Your task to perform on an android device: turn on the 24-hour format for clock Image 0: 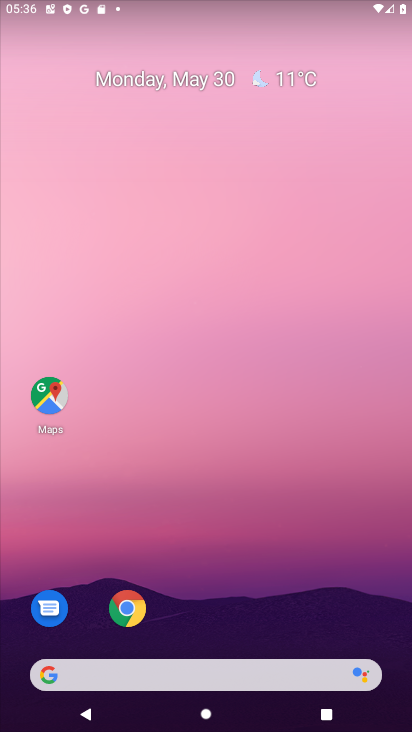
Step 0: drag from (206, 651) to (239, 219)
Your task to perform on an android device: turn on the 24-hour format for clock Image 1: 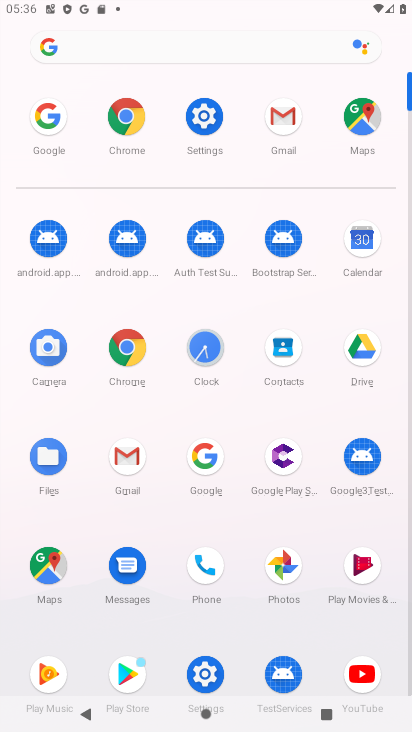
Step 1: click (197, 113)
Your task to perform on an android device: turn on the 24-hour format for clock Image 2: 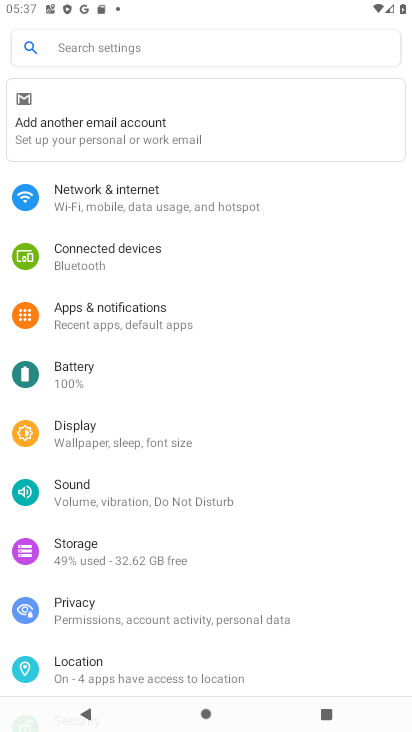
Step 2: press home button
Your task to perform on an android device: turn on the 24-hour format for clock Image 3: 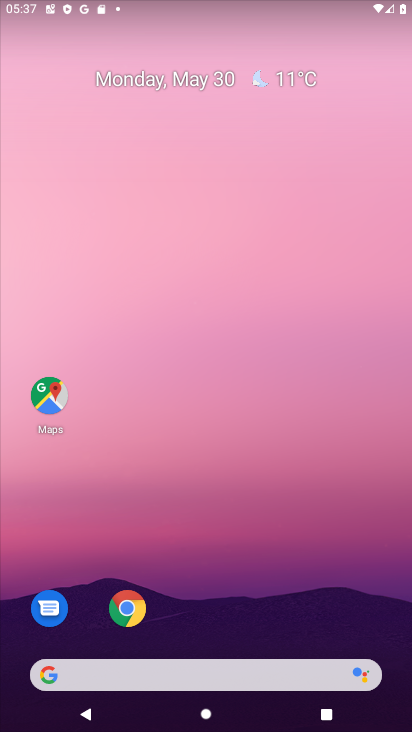
Step 3: drag from (196, 657) to (196, 162)
Your task to perform on an android device: turn on the 24-hour format for clock Image 4: 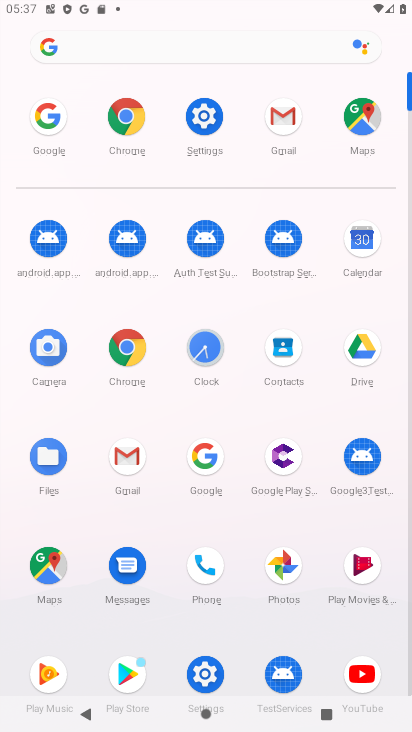
Step 4: click (206, 345)
Your task to perform on an android device: turn on the 24-hour format for clock Image 5: 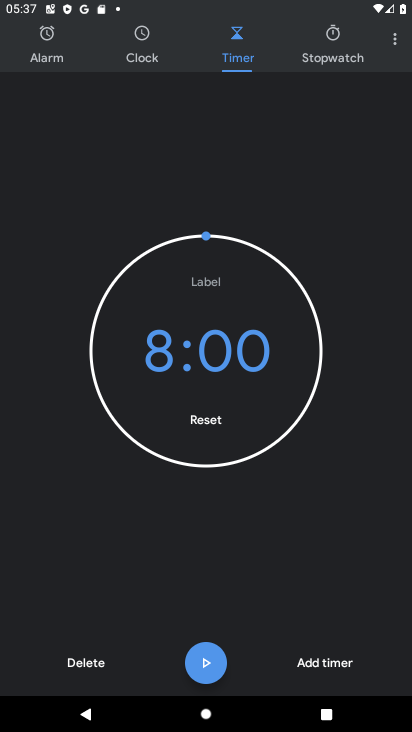
Step 5: click (404, 49)
Your task to perform on an android device: turn on the 24-hour format for clock Image 6: 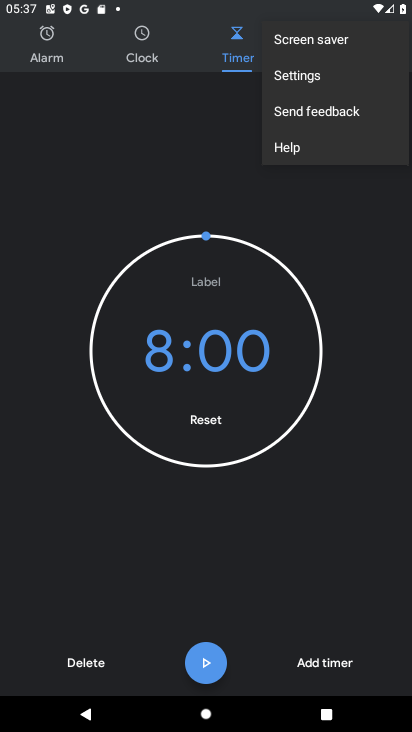
Step 6: click (310, 79)
Your task to perform on an android device: turn on the 24-hour format for clock Image 7: 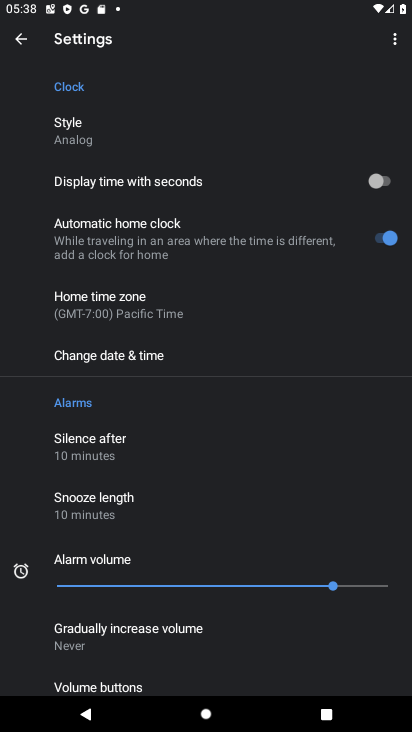
Step 7: click (107, 355)
Your task to perform on an android device: turn on the 24-hour format for clock Image 8: 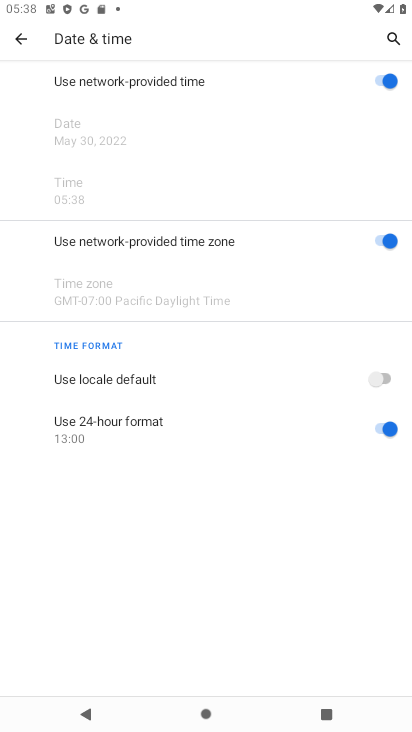
Step 8: task complete